Your task to perform on an android device: Open Chrome and go to settings Image 0: 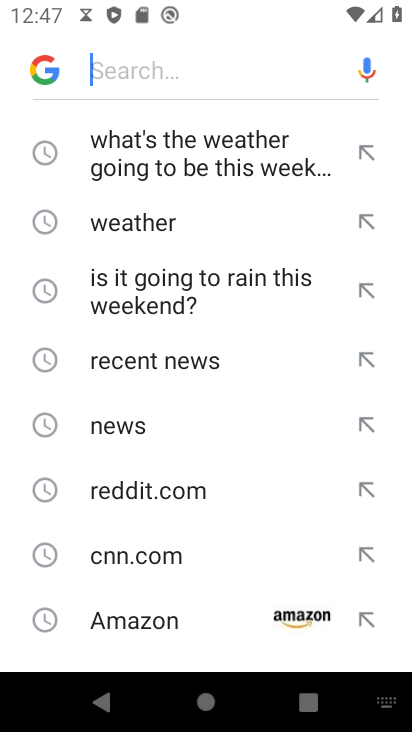
Step 0: press home button
Your task to perform on an android device: Open Chrome and go to settings Image 1: 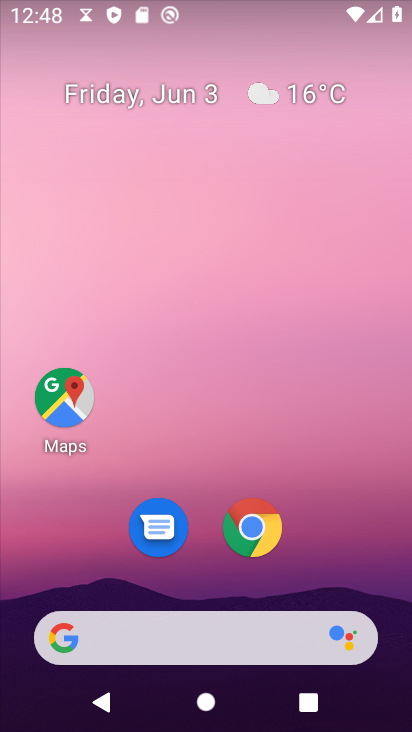
Step 1: drag from (356, 548) to (318, 214)
Your task to perform on an android device: Open Chrome and go to settings Image 2: 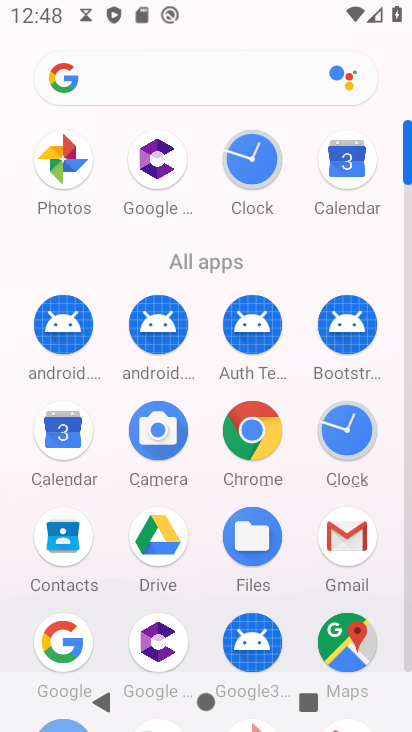
Step 2: click (255, 443)
Your task to perform on an android device: Open Chrome and go to settings Image 3: 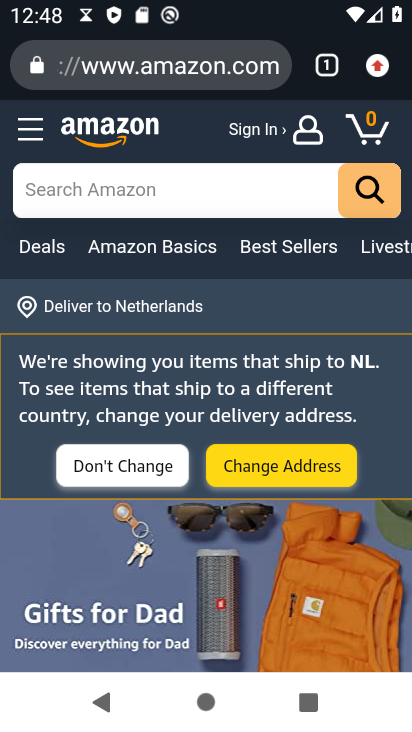
Step 3: click (374, 74)
Your task to perform on an android device: Open Chrome and go to settings Image 4: 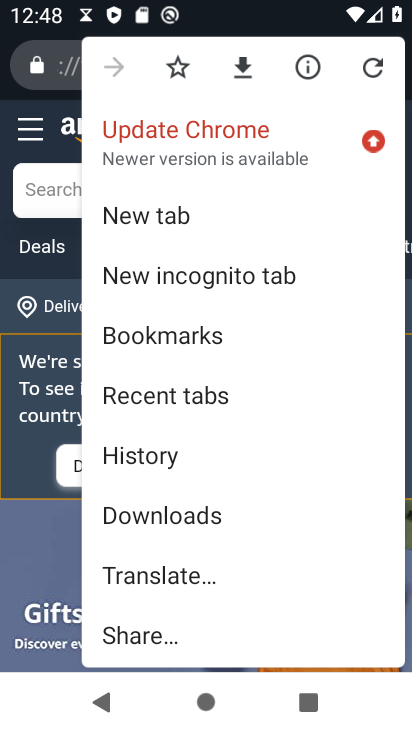
Step 4: drag from (287, 594) to (302, 136)
Your task to perform on an android device: Open Chrome and go to settings Image 5: 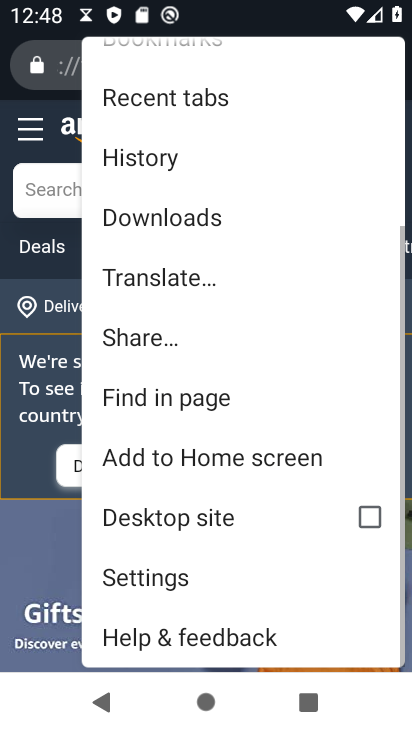
Step 5: click (176, 574)
Your task to perform on an android device: Open Chrome and go to settings Image 6: 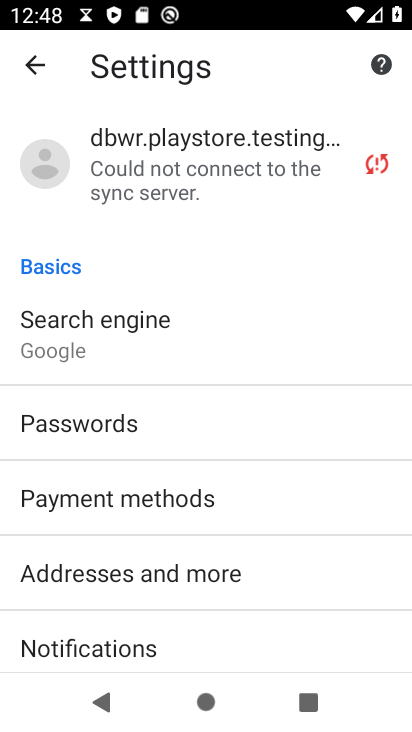
Step 6: task complete